Your task to perform on an android device: Go to notification settings Image 0: 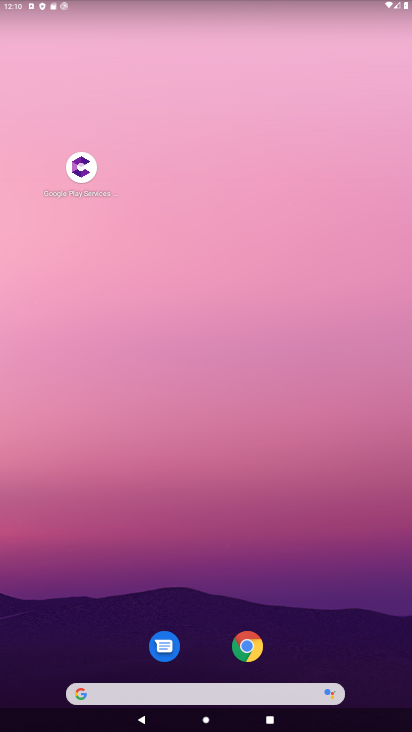
Step 0: drag from (375, 650) to (235, 18)
Your task to perform on an android device: Go to notification settings Image 1: 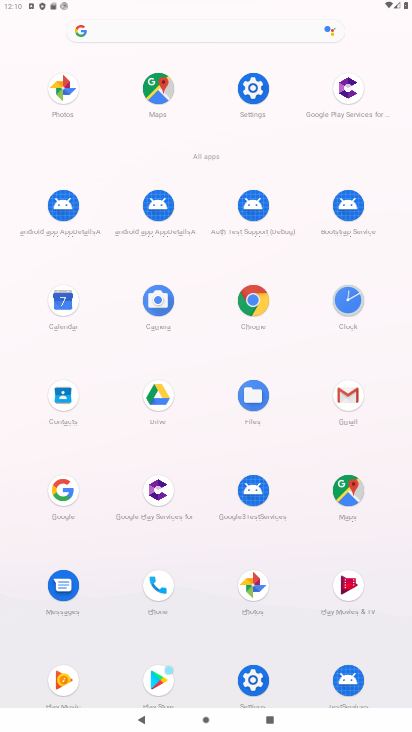
Step 1: click (254, 100)
Your task to perform on an android device: Go to notification settings Image 2: 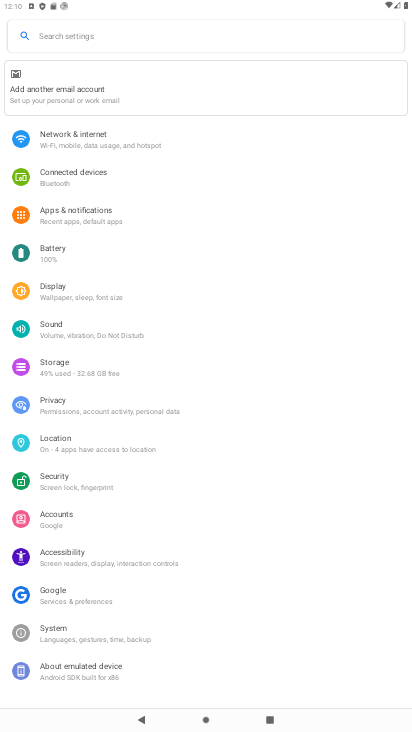
Step 2: click (93, 215)
Your task to perform on an android device: Go to notification settings Image 3: 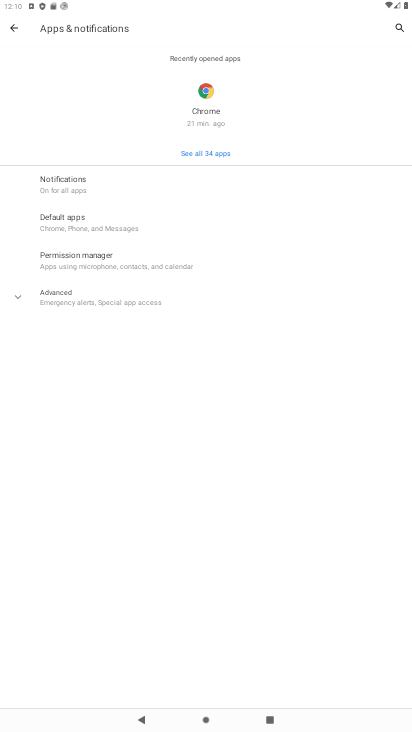
Step 3: task complete